Your task to perform on an android device: What is the news today? Image 0: 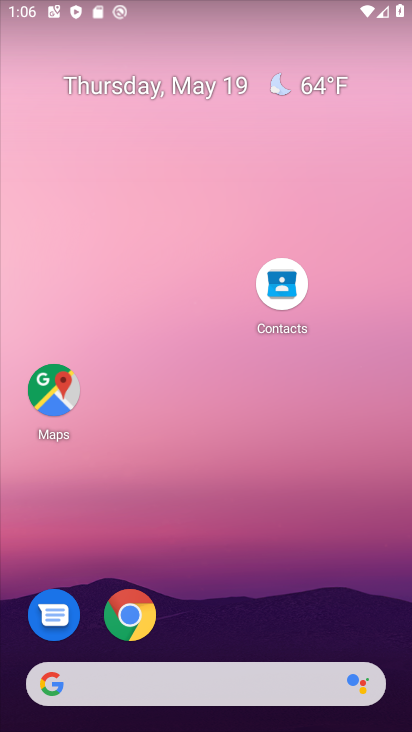
Step 0: drag from (277, 688) to (247, 209)
Your task to perform on an android device: What is the news today? Image 1: 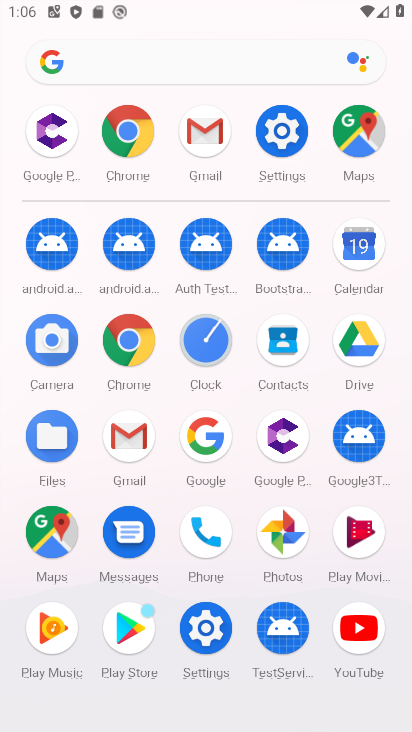
Step 1: click (218, 432)
Your task to perform on an android device: What is the news today? Image 2: 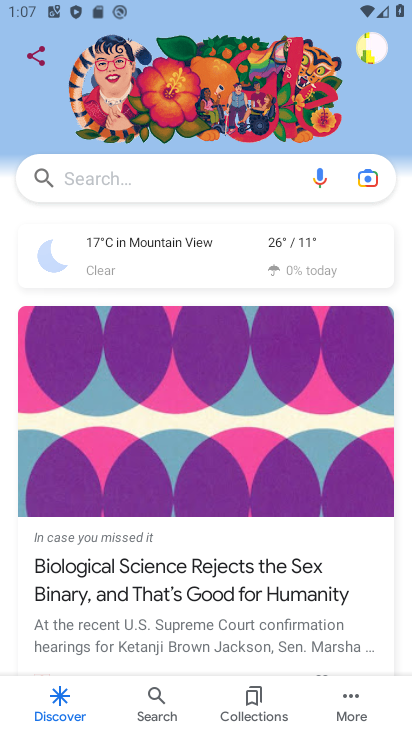
Step 2: click (227, 172)
Your task to perform on an android device: What is the news today? Image 3: 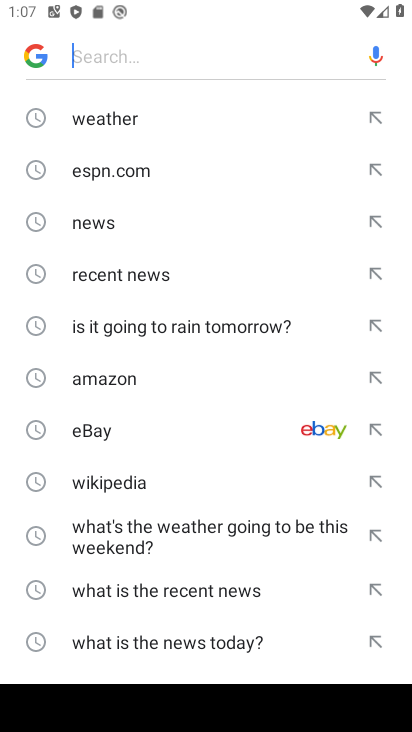
Step 3: click (111, 212)
Your task to perform on an android device: What is the news today? Image 4: 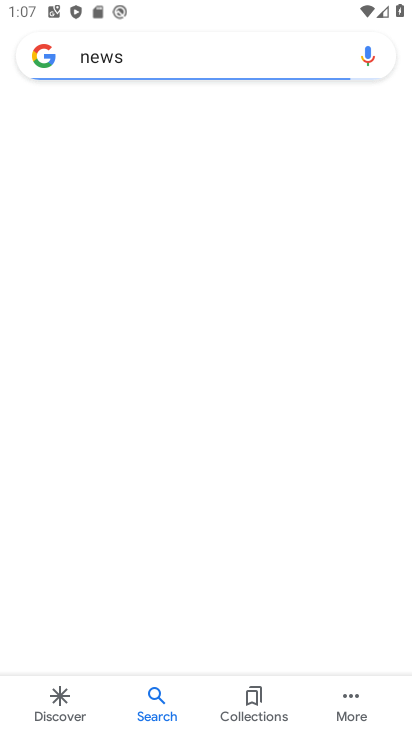
Step 4: task complete